Your task to perform on an android device: Open the phone app and click the voicemail tab. Image 0: 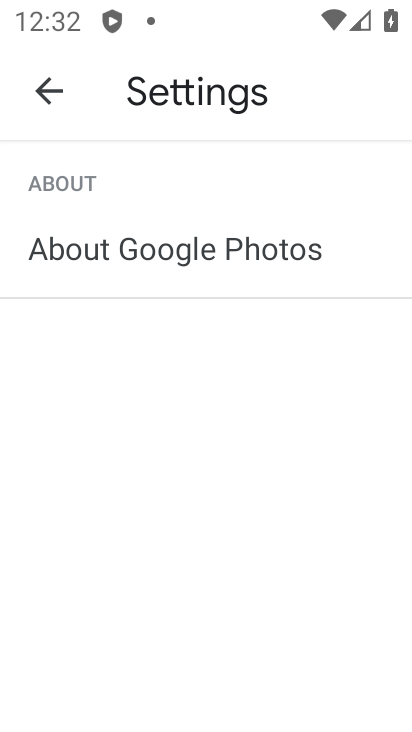
Step 0: press home button
Your task to perform on an android device: Open the phone app and click the voicemail tab. Image 1: 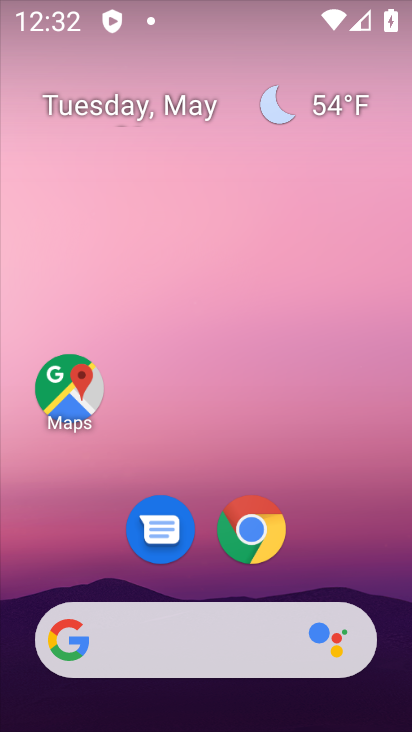
Step 1: drag from (230, 566) to (220, 205)
Your task to perform on an android device: Open the phone app and click the voicemail tab. Image 2: 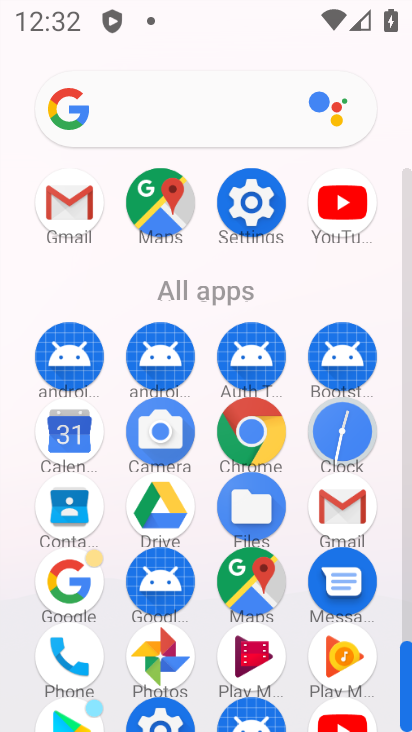
Step 2: drag from (214, 576) to (217, 380)
Your task to perform on an android device: Open the phone app and click the voicemail tab. Image 3: 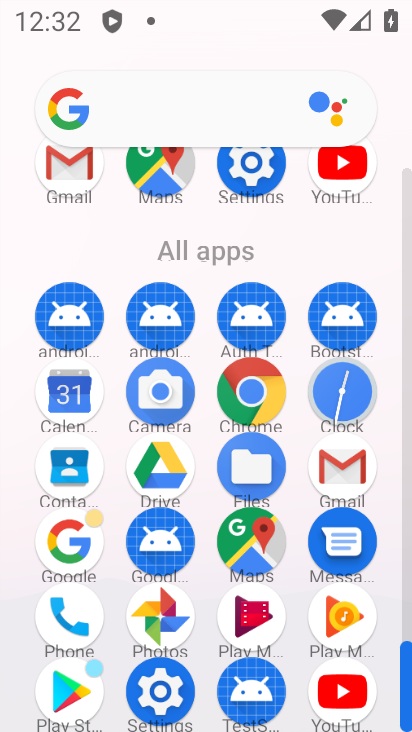
Step 3: click (65, 604)
Your task to perform on an android device: Open the phone app and click the voicemail tab. Image 4: 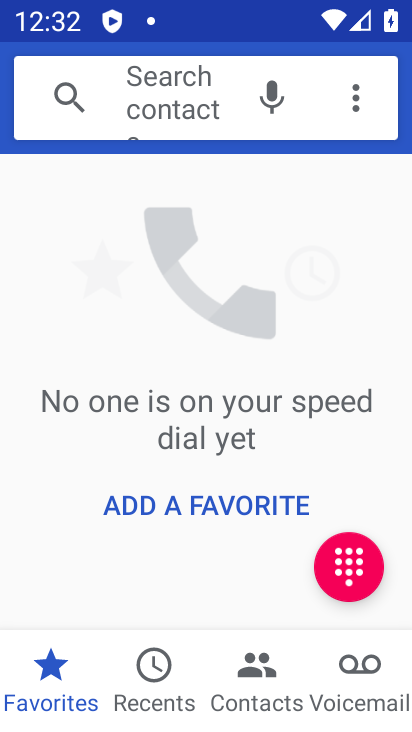
Step 4: click (341, 663)
Your task to perform on an android device: Open the phone app and click the voicemail tab. Image 5: 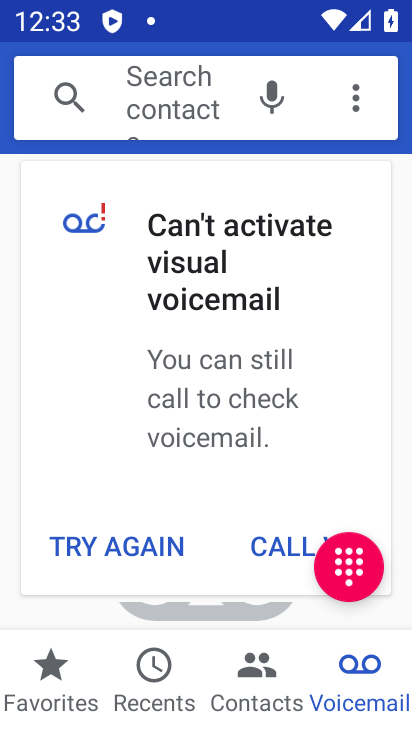
Step 5: task complete